Your task to perform on an android device: Go to privacy settings Image 0: 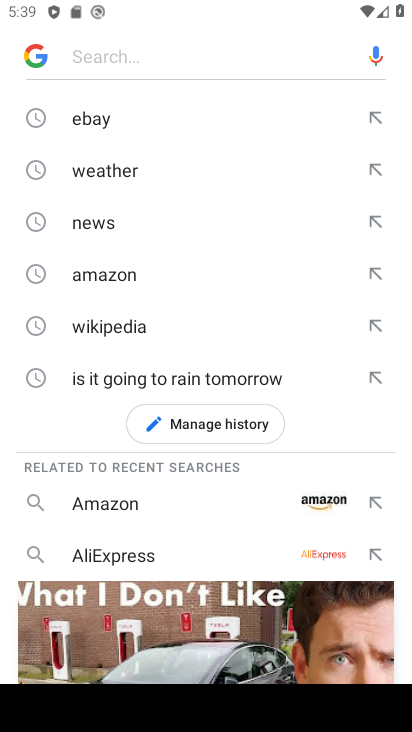
Step 0: press home button
Your task to perform on an android device: Go to privacy settings Image 1: 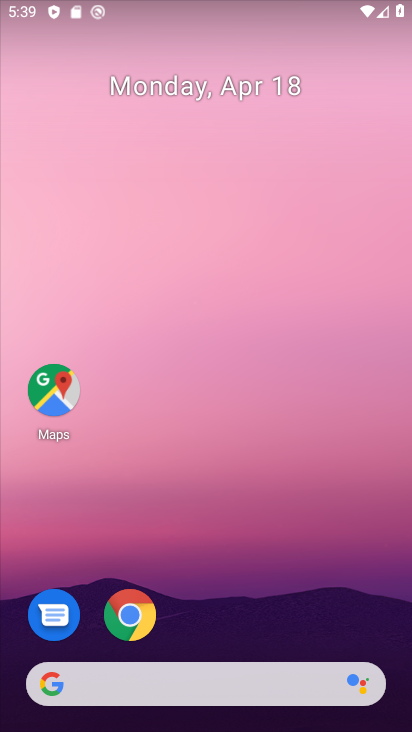
Step 1: drag from (218, 604) to (199, 29)
Your task to perform on an android device: Go to privacy settings Image 2: 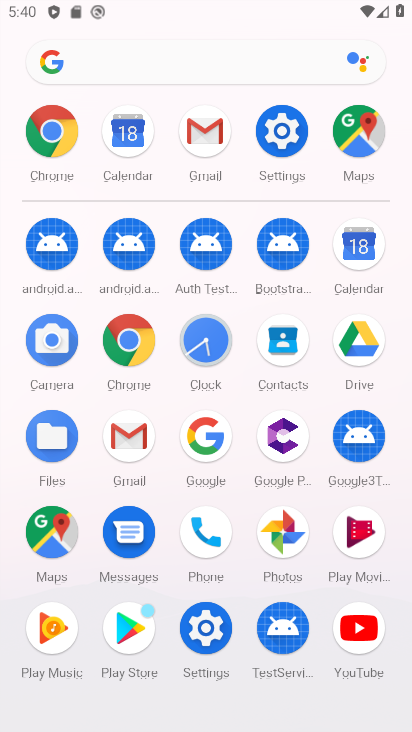
Step 2: click (278, 141)
Your task to perform on an android device: Go to privacy settings Image 3: 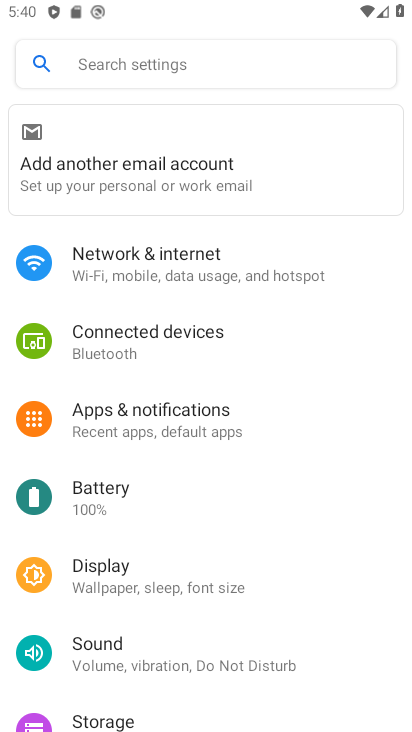
Step 3: drag from (359, 694) to (302, 153)
Your task to perform on an android device: Go to privacy settings Image 4: 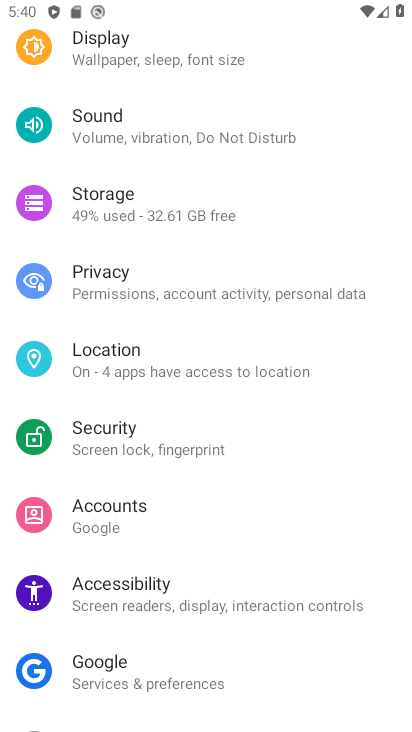
Step 4: click (136, 297)
Your task to perform on an android device: Go to privacy settings Image 5: 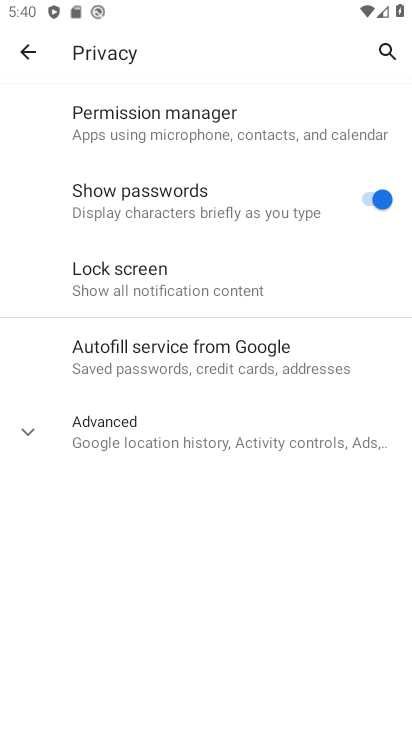
Step 5: task complete